Your task to perform on an android device: clear all cookies in the chrome app Image 0: 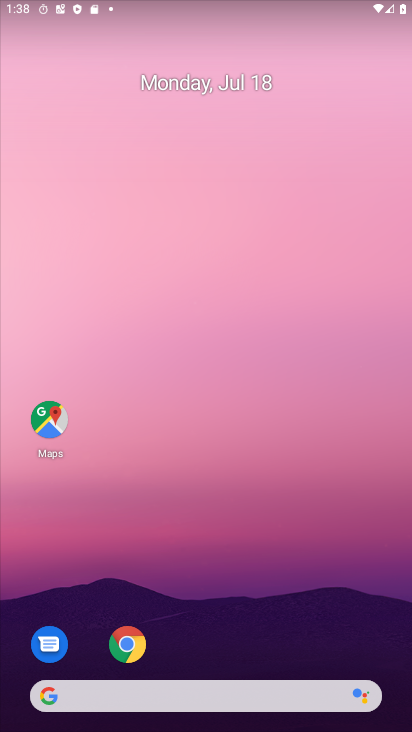
Step 0: click (126, 647)
Your task to perform on an android device: clear all cookies in the chrome app Image 1: 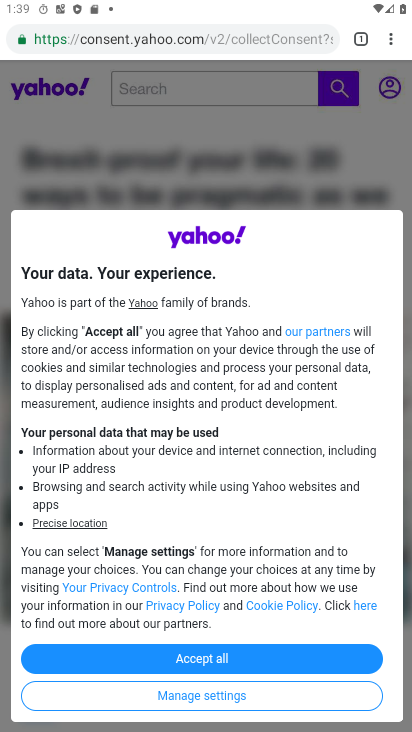
Step 1: click (396, 44)
Your task to perform on an android device: clear all cookies in the chrome app Image 2: 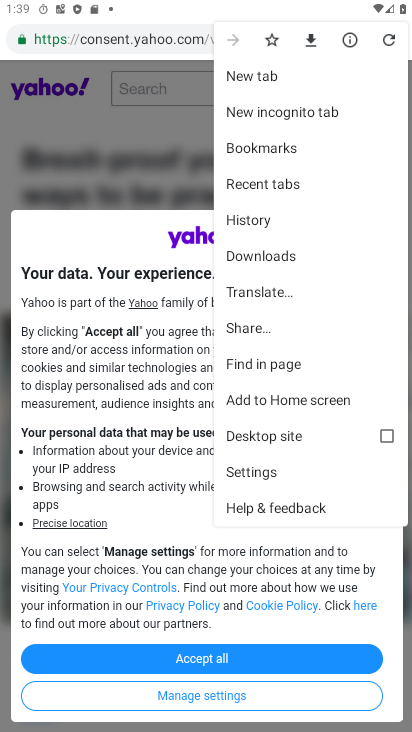
Step 2: click (270, 225)
Your task to perform on an android device: clear all cookies in the chrome app Image 3: 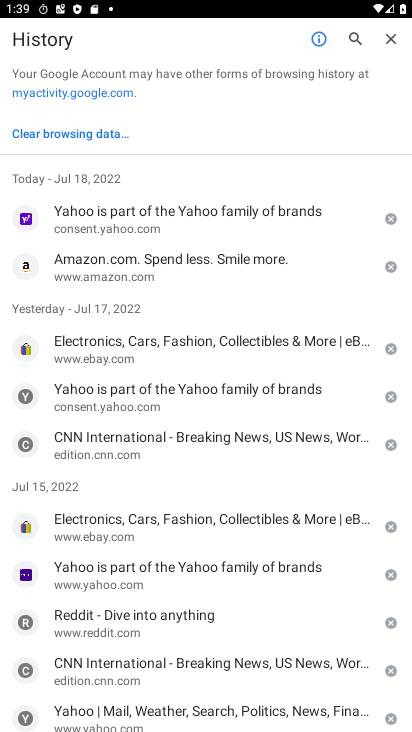
Step 3: click (48, 137)
Your task to perform on an android device: clear all cookies in the chrome app Image 4: 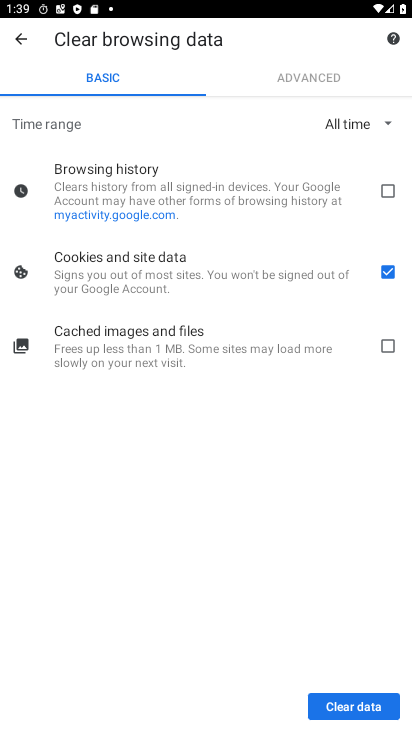
Step 4: click (359, 718)
Your task to perform on an android device: clear all cookies in the chrome app Image 5: 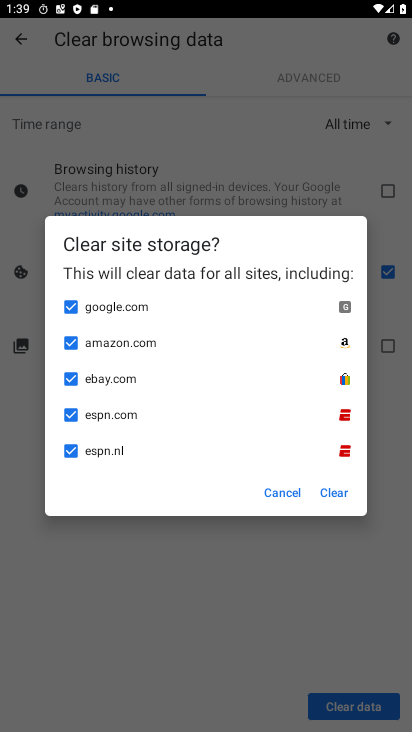
Step 5: click (331, 494)
Your task to perform on an android device: clear all cookies in the chrome app Image 6: 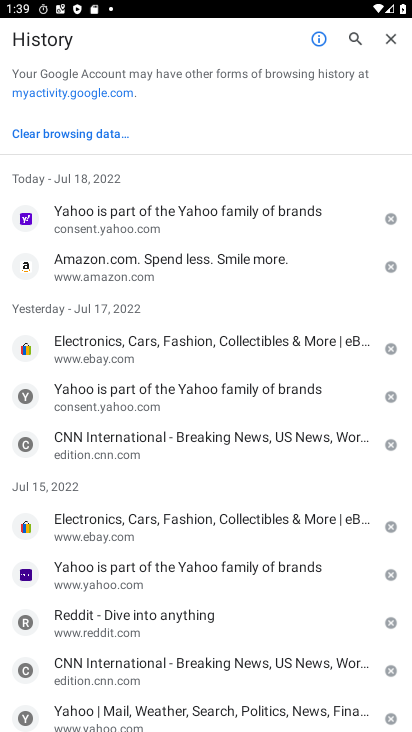
Step 6: task complete